Your task to perform on an android device: Check the weather Image 0: 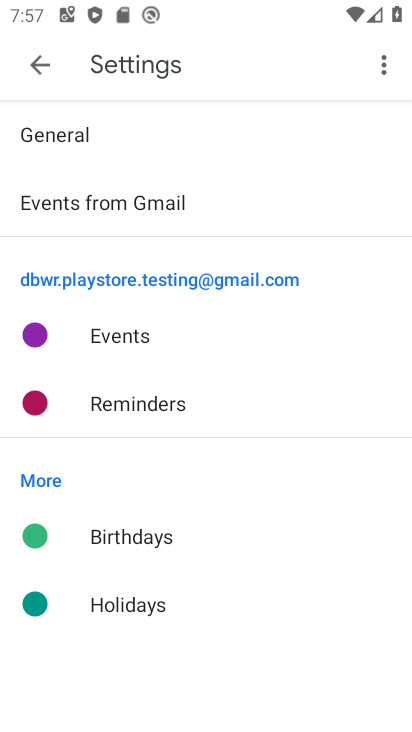
Step 0: press home button
Your task to perform on an android device: Check the weather Image 1: 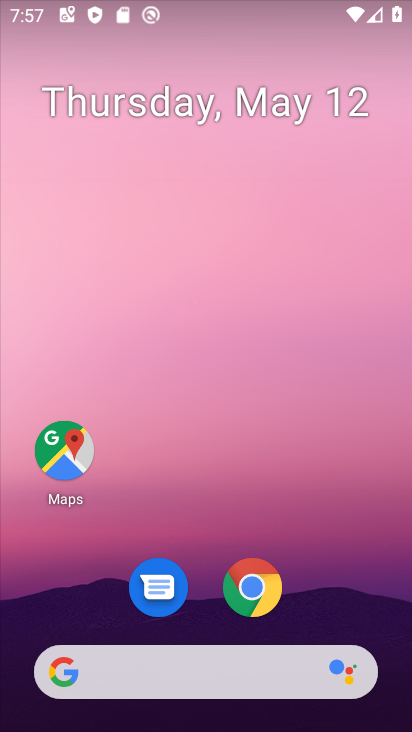
Step 1: drag from (357, 634) to (320, 214)
Your task to perform on an android device: Check the weather Image 2: 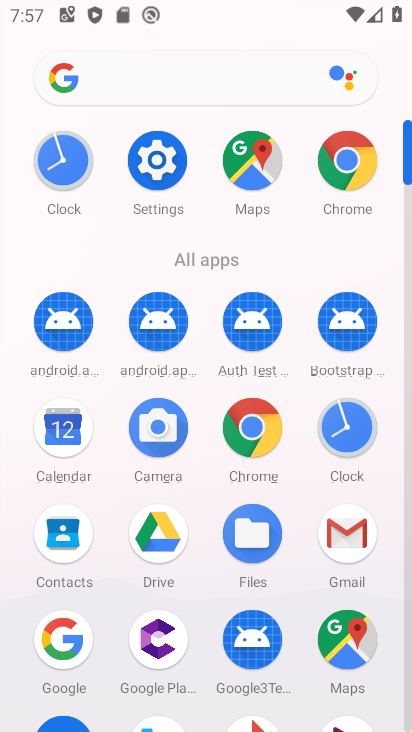
Step 2: click (251, 422)
Your task to perform on an android device: Check the weather Image 3: 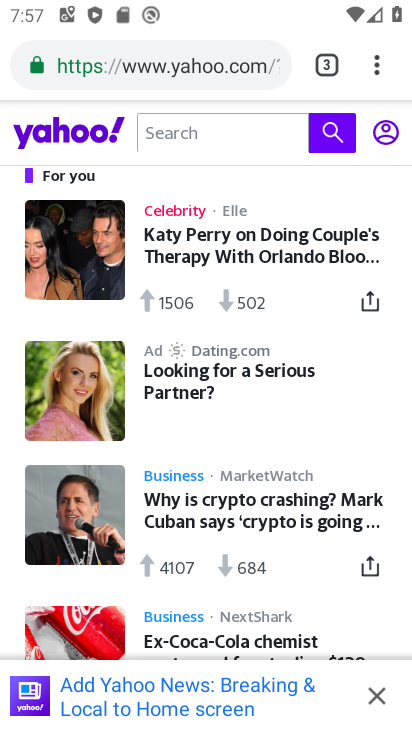
Step 3: click (366, 62)
Your task to perform on an android device: Check the weather Image 4: 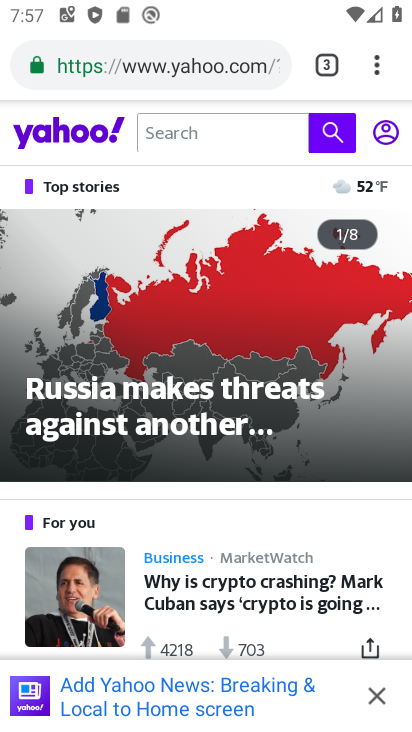
Step 4: click (369, 63)
Your task to perform on an android device: Check the weather Image 5: 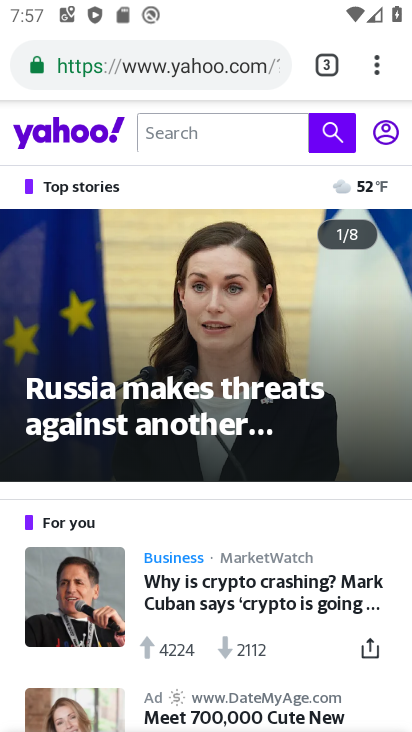
Step 5: click (361, 58)
Your task to perform on an android device: Check the weather Image 6: 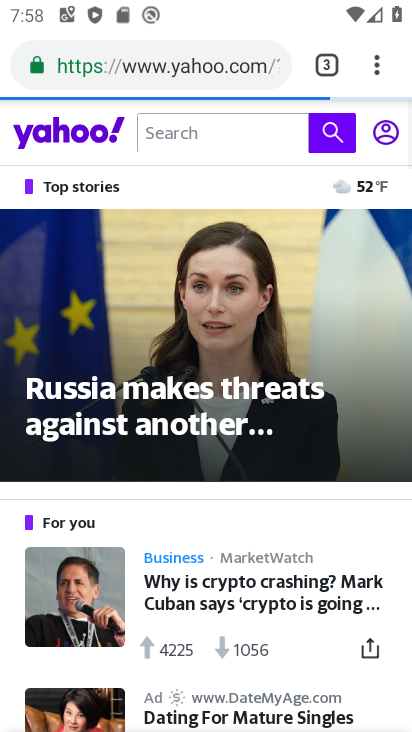
Step 6: click (394, 55)
Your task to perform on an android device: Check the weather Image 7: 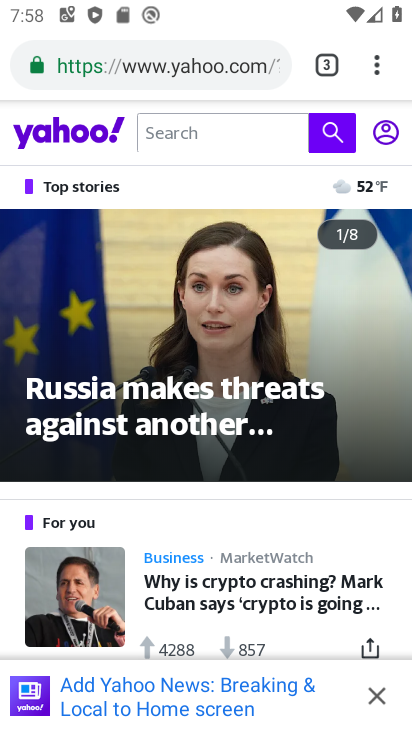
Step 7: click (365, 61)
Your task to perform on an android device: Check the weather Image 8: 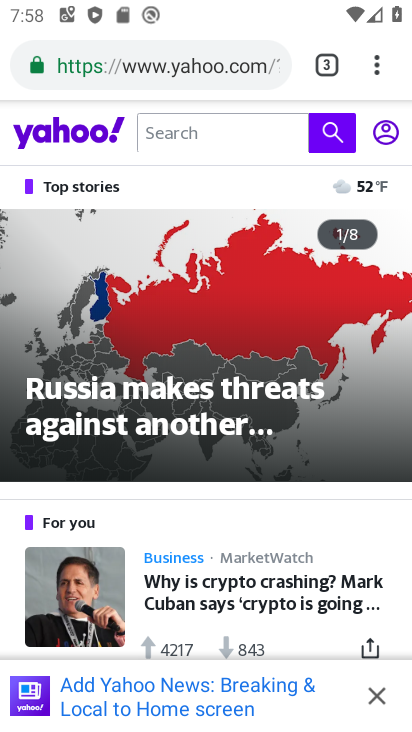
Step 8: click (364, 62)
Your task to perform on an android device: Check the weather Image 9: 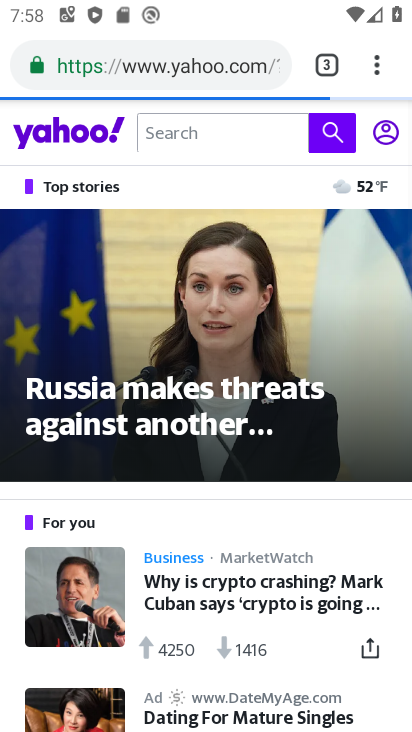
Step 9: click (346, 56)
Your task to perform on an android device: Check the weather Image 10: 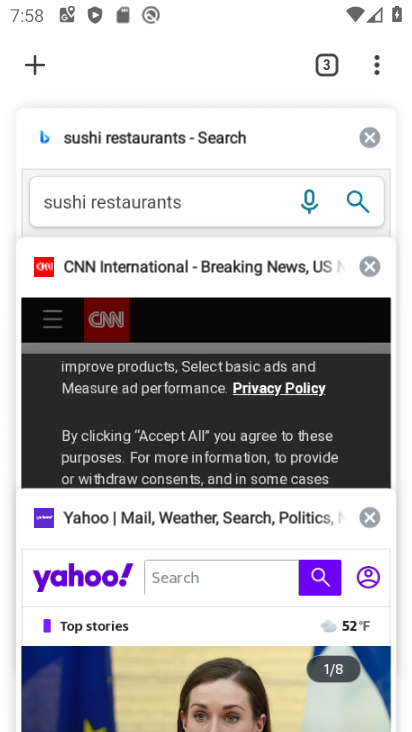
Step 10: click (30, 61)
Your task to perform on an android device: Check the weather Image 11: 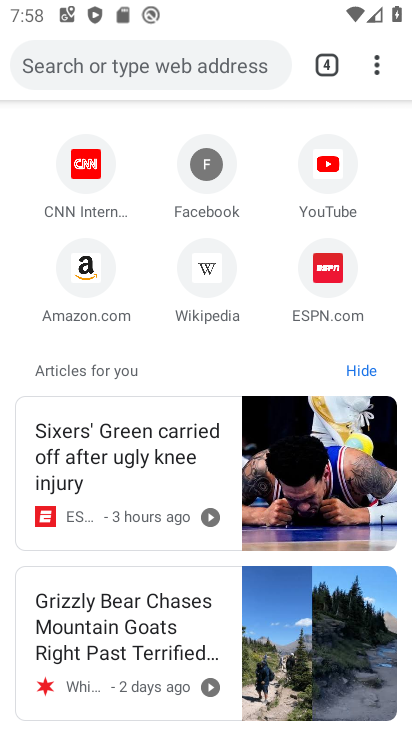
Step 11: click (116, 48)
Your task to perform on an android device: Check the weather Image 12: 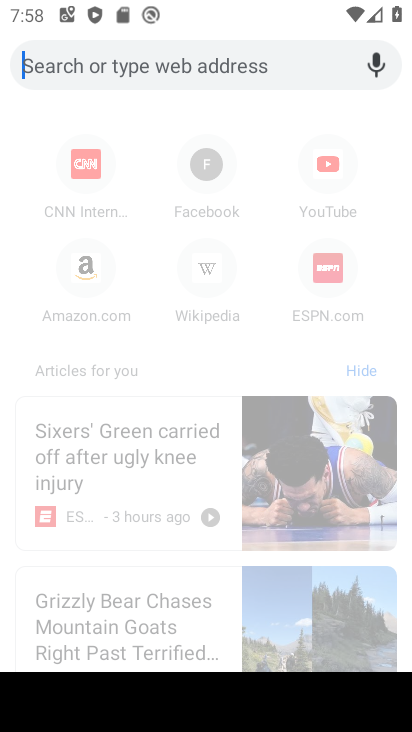
Step 12: type "Check the weather"
Your task to perform on an android device: Check the weather Image 13: 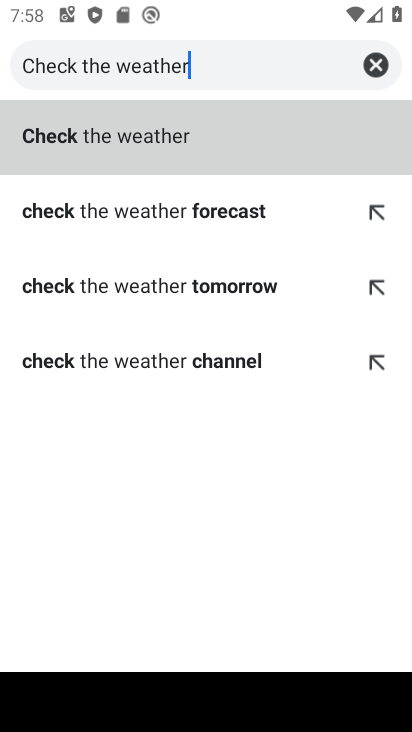
Step 13: click (185, 136)
Your task to perform on an android device: Check the weather Image 14: 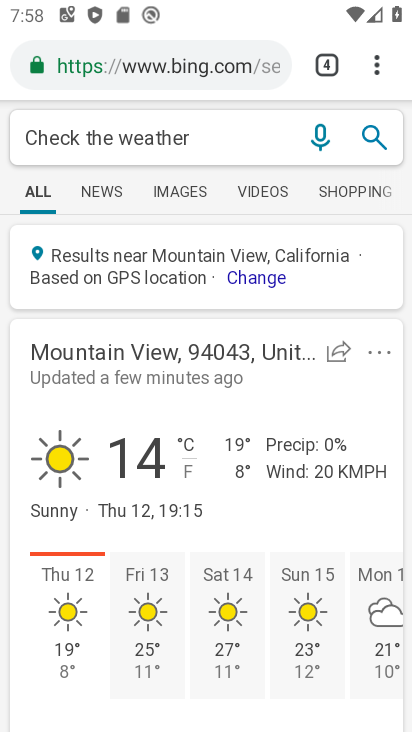
Step 14: task complete